Your task to perform on an android device: turn off picture-in-picture Image 0: 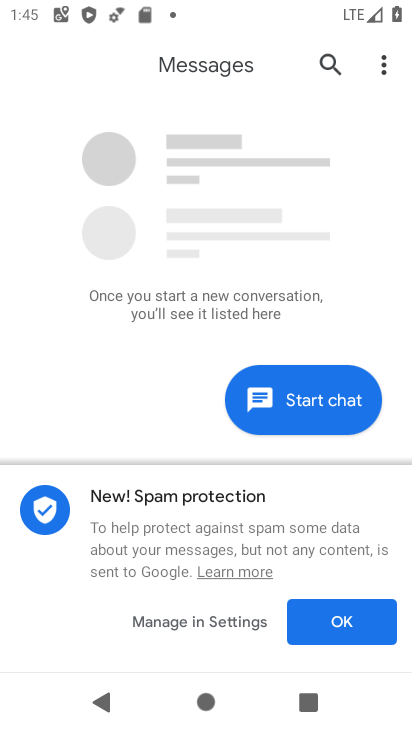
Step 0: press home button
Your task to perform on an android device: turn off picture-in-picture Image 1: 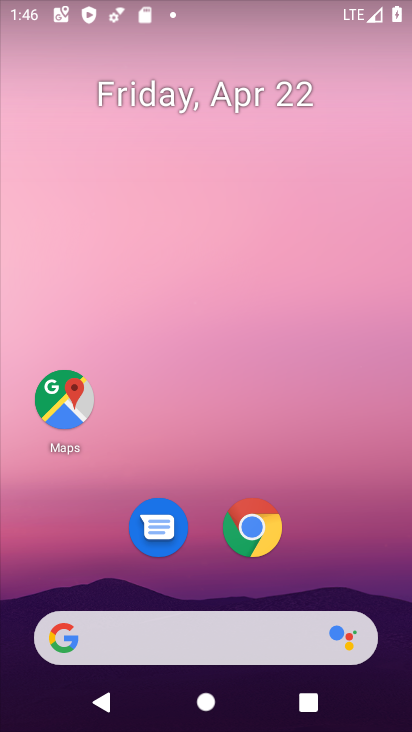
Step 1: drag from (310, 542) to (282, 151)
Your task to perform on an android device: turn off picture-in-picture Image 2: 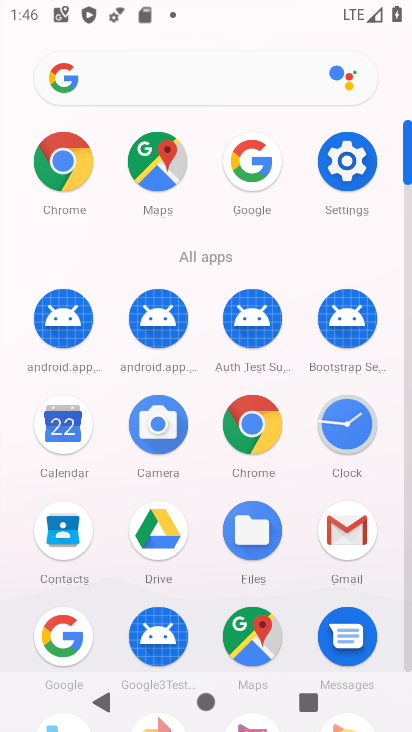
Step 2: click (361, 172)
Your task to perform on an android device: turn off picture-in-picture Image 3: 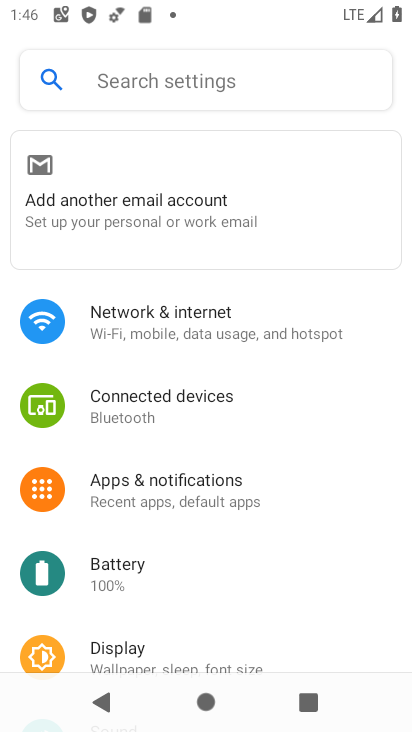
Step 3: click (191, 499)
Your task to perform on an android device: turn off picture-in-picture Image 4: 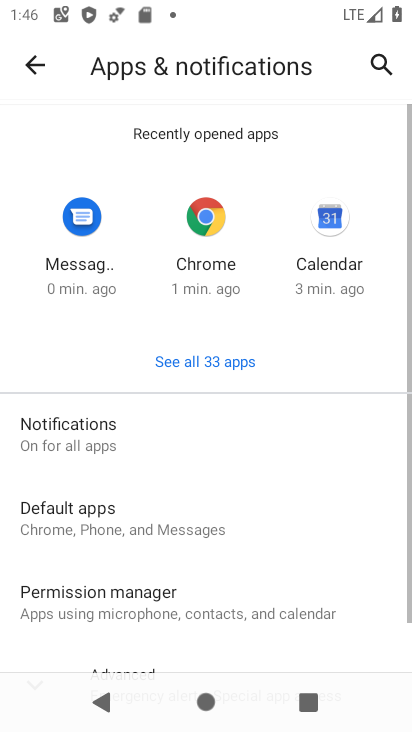
Step 4: drag from (193, 610) to (208, 360)
Your task to perform on an android device: turn off picture-in-picture Image 5: 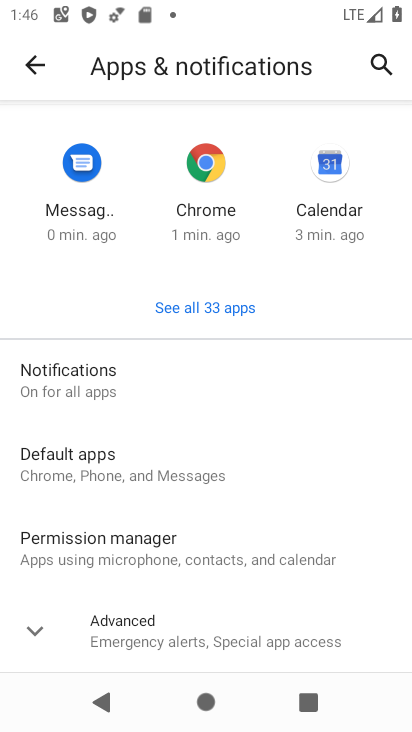
Step 5: click (170, 636)
Your task to perform on an android device: turn off picture-in-picture Image 6: 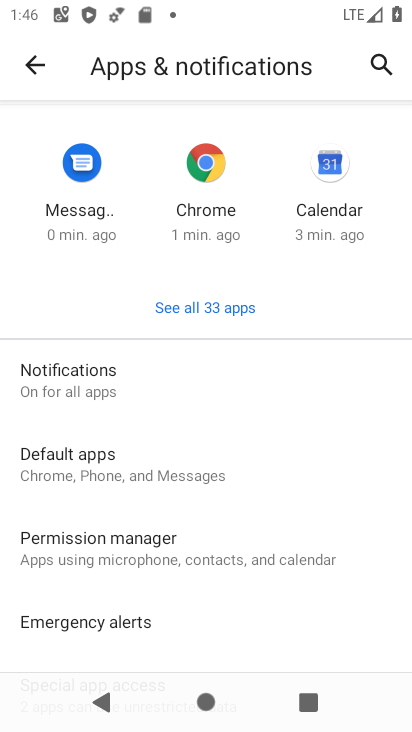
Step 6: drag from (143, 618) to (145, 312)
Your task to perform on an android device: turn off picture-in-picture Image 7: 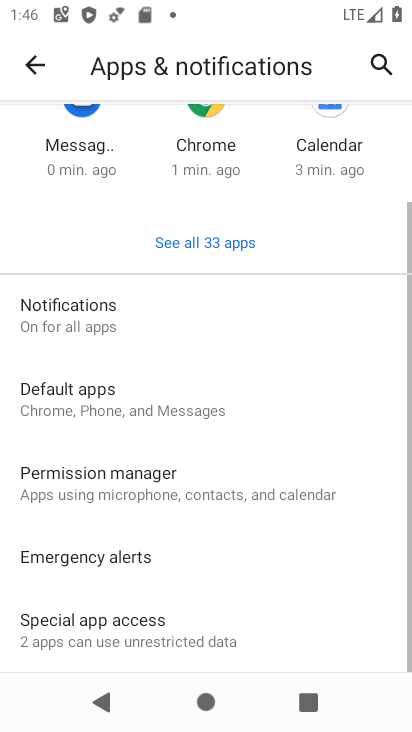
Step 7: click (114, 631)
Your task to perform on an android device: turn off picture-in-picture Image 8: 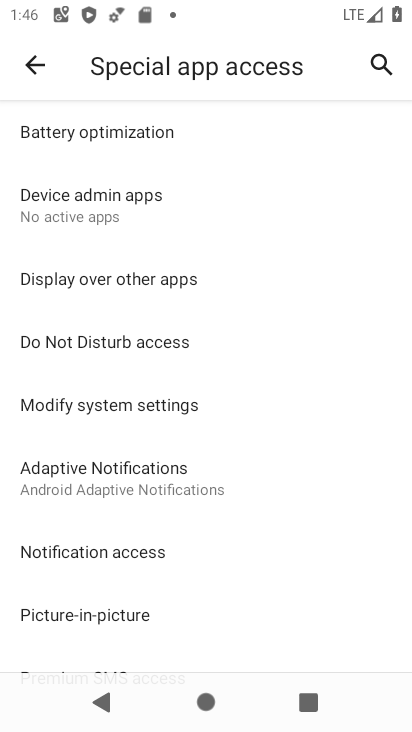
Step 8: click (122, 616)
Your task to perform on an android device: turn off picture-in-picture Image 9: 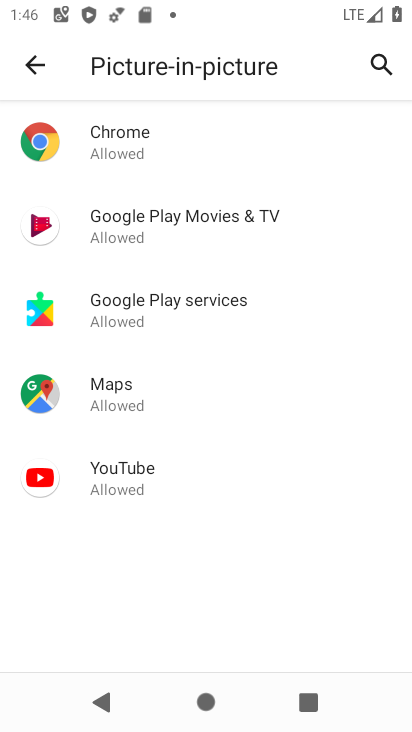
Step 9: click (192, 306)
Your task to perform on an android device: turn off picture-in-picture Image 10: 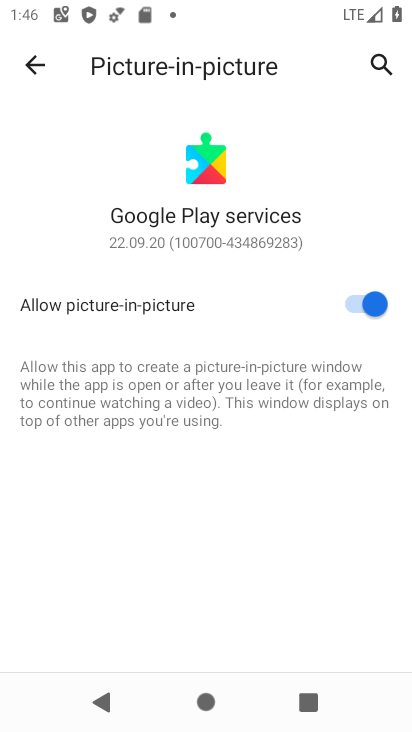
Step 10: click (380, 298)
Your task to perform on an android device: turn off picture-in-picture Image 11: 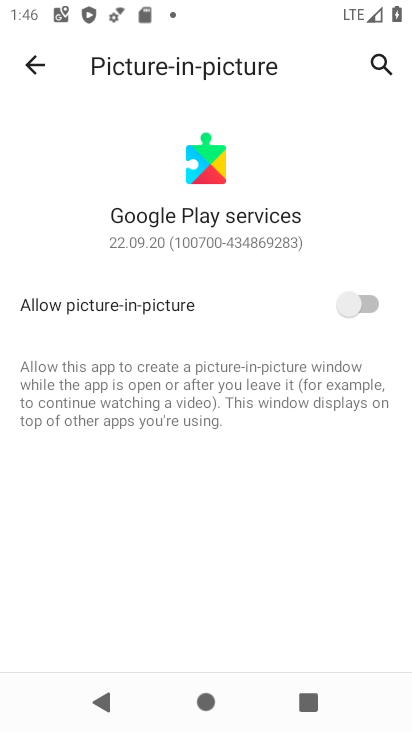
Step 11: task complete